Your task to perform on an android device: Search for Italian restaurants on Maps Image 0: 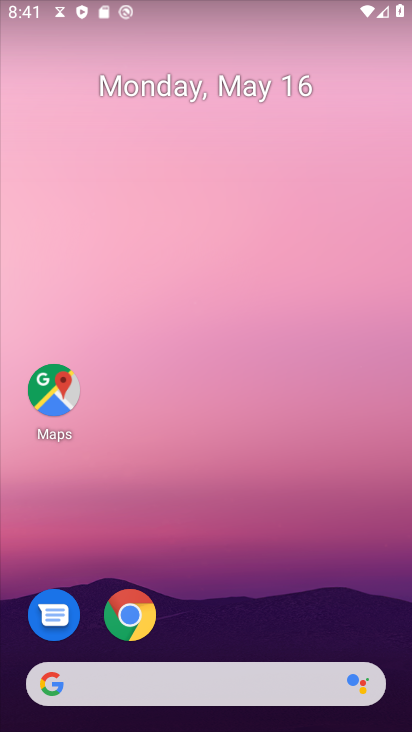
Step 0: click (54, 394)
Your task to perform on an android device: Search for Italian restaurants on Maps Image 1: 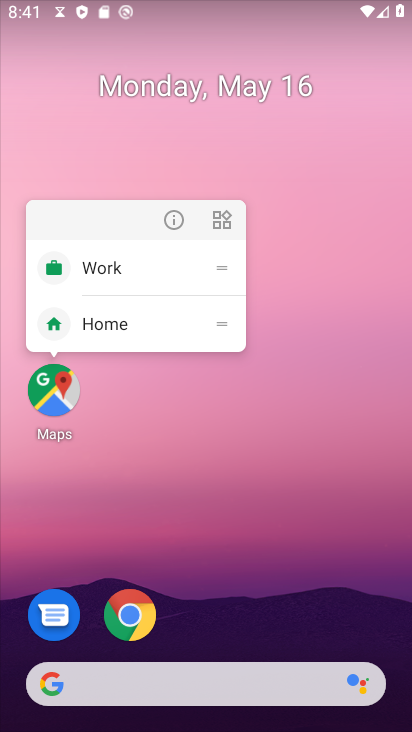
Step 1: click (54, 394)
Your task to perform on an android device: Search for Italian restaurants on Maps Image 2: 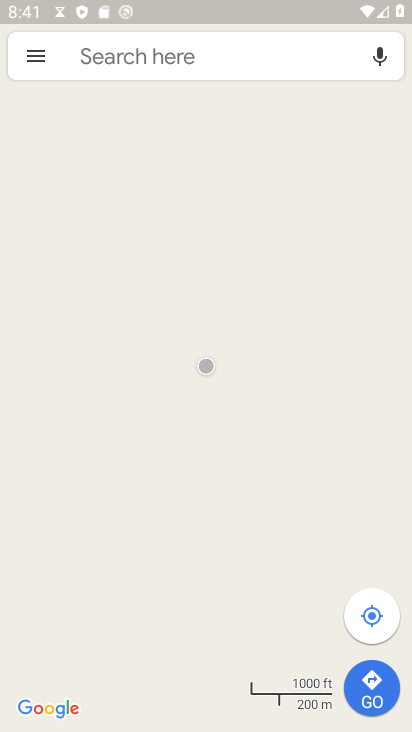
Step 2: click (155, 54)
Your task to perform on an android device: Search for Italian restaurants on Maps Image 3: 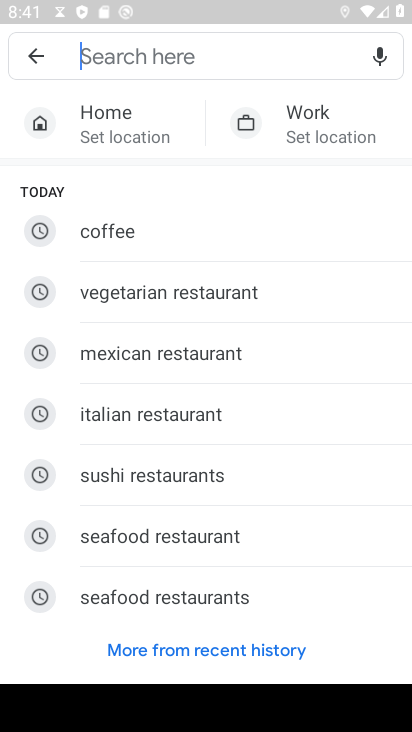
Step 3: type "Italian restaurants"
Your task to perform on an android device: Search for Italian restaurants on Maps Image 4: 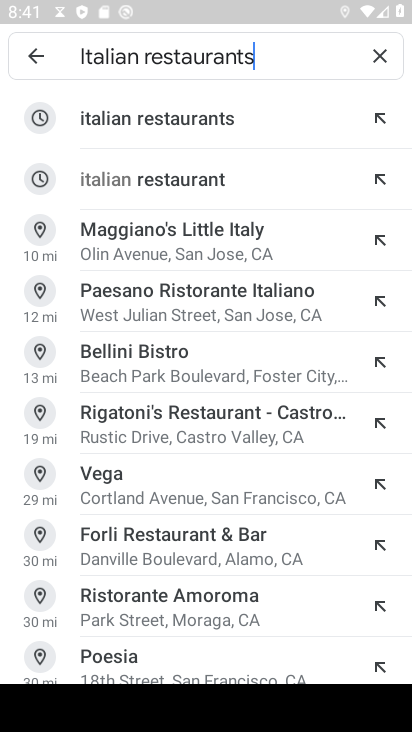
Step 4: click (108, 117)
Your task to perform on an android device: Search for Italian restaurants on Maps Image 5: 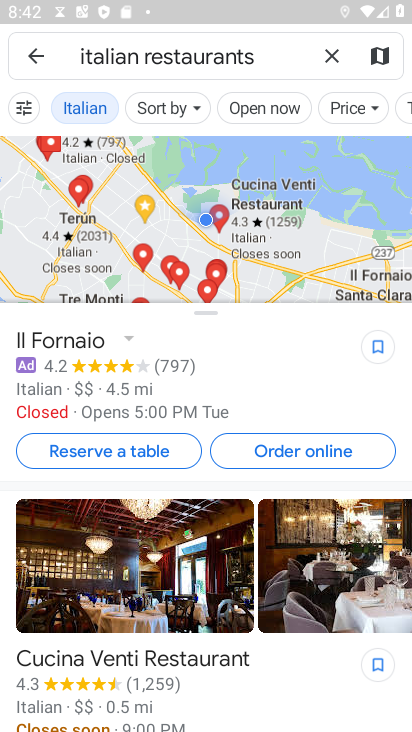
Step 5: task complete